Your task to perform on an android device: Open the map Image 0: 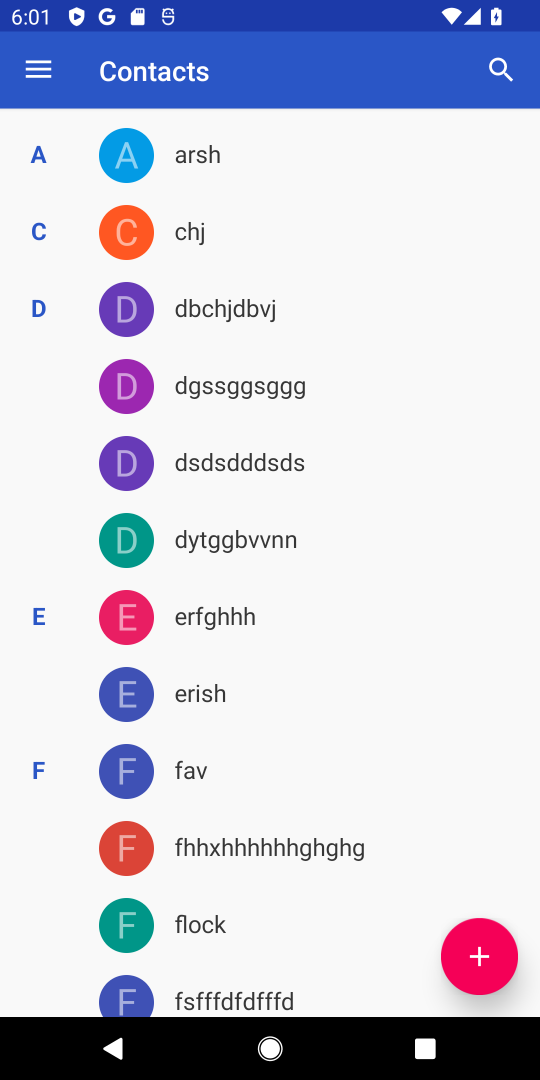
Step 0: press home button
Your task to perform on an android device: Open the map Image 1: 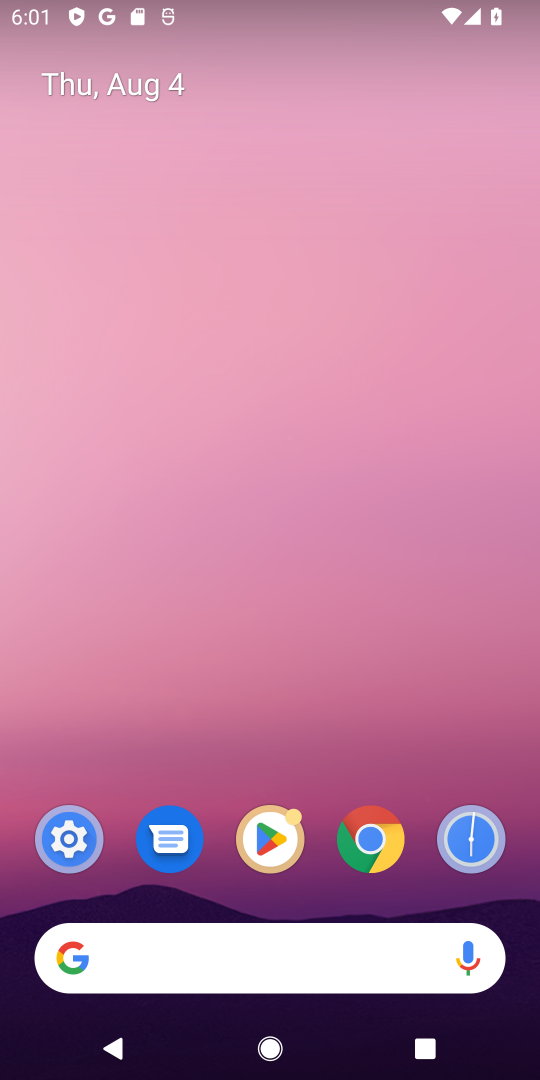
Step 1: drag from (391, 714) to (539, 183)
Your task to perform on an android device: Open the map Image 2: 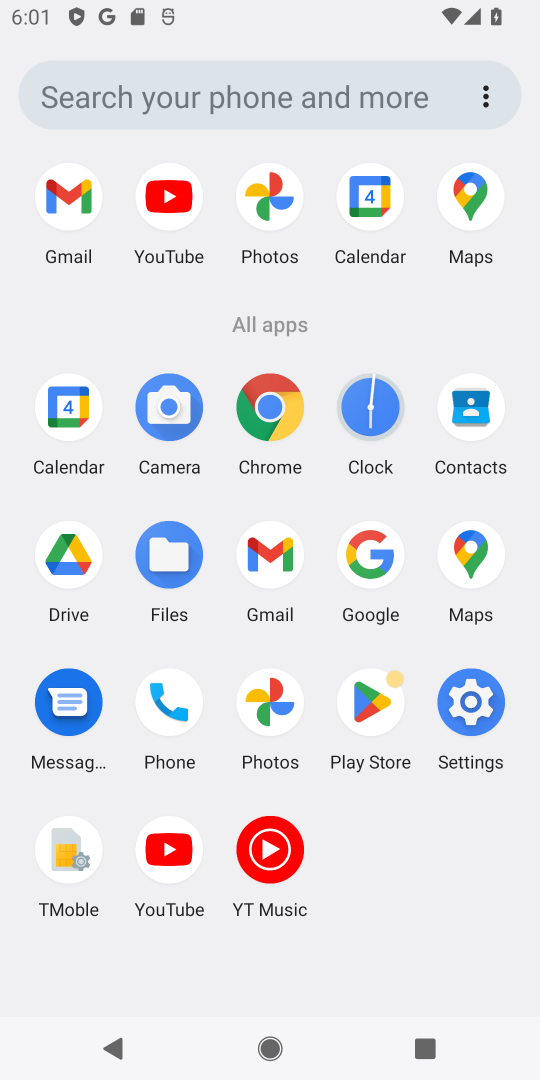
Step 2: click (467, 562)
Your task to perform on an android device: Open the map Image 3: 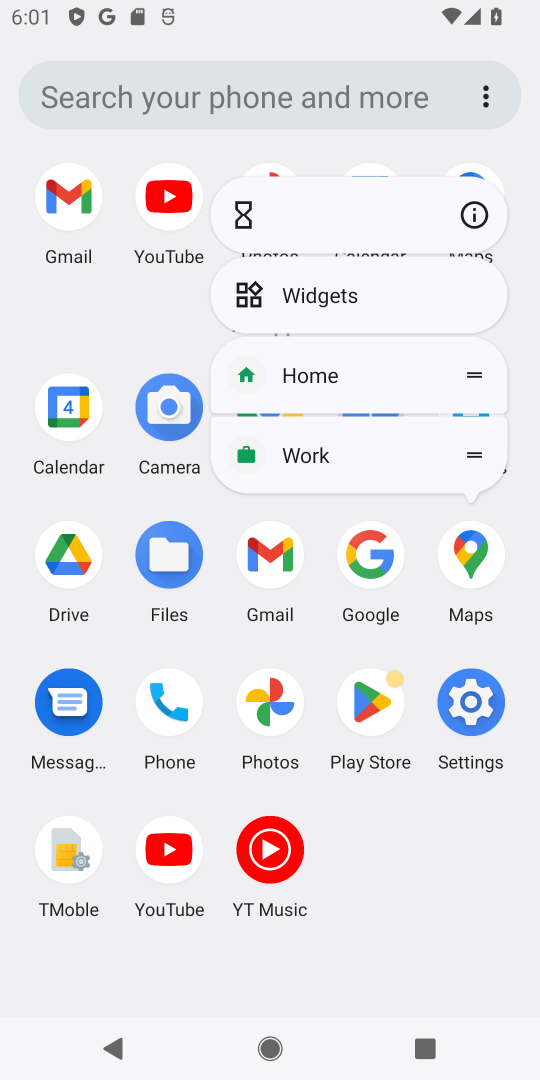
Step 3: click (467, 574)
Your task to perform on an android device: Open the map Image 4: 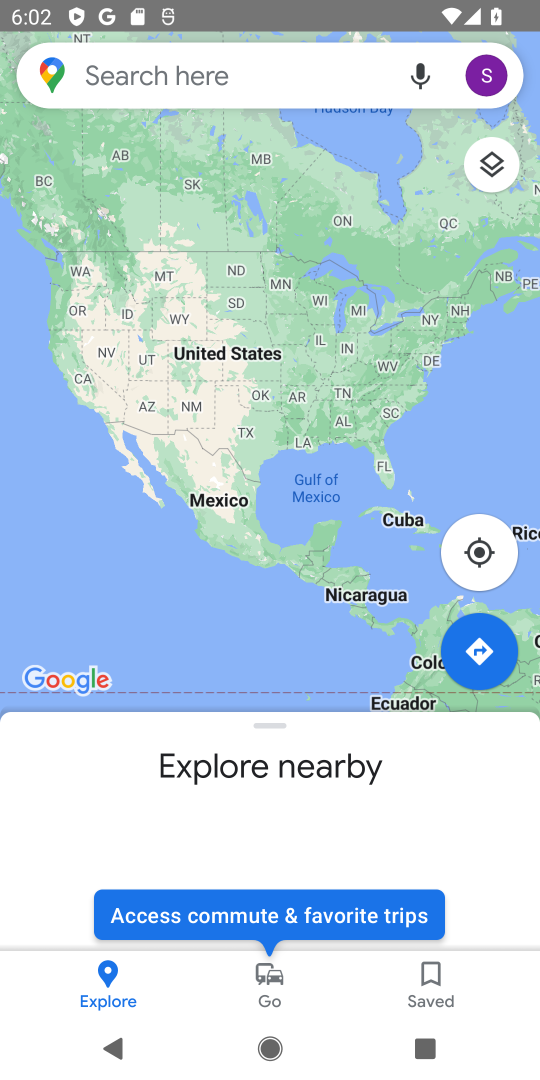
Step 4: task complete